Your task to perform on an android device: Open Google Maps Image 0: 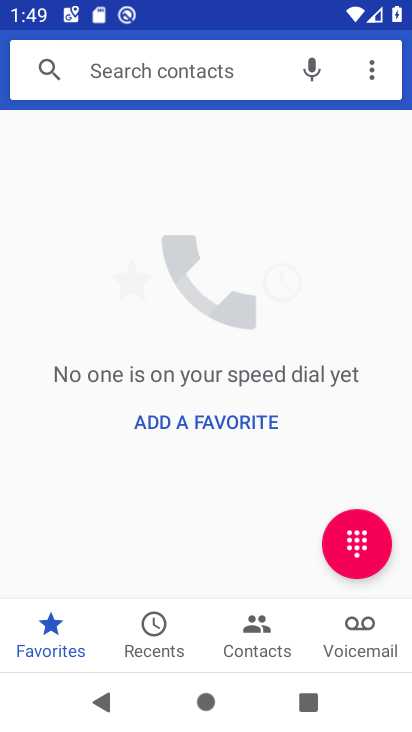
Step 0: drag from (239, 556) to (246, 348)
Your task to perform on an android device: Open Google Maps Image 1: 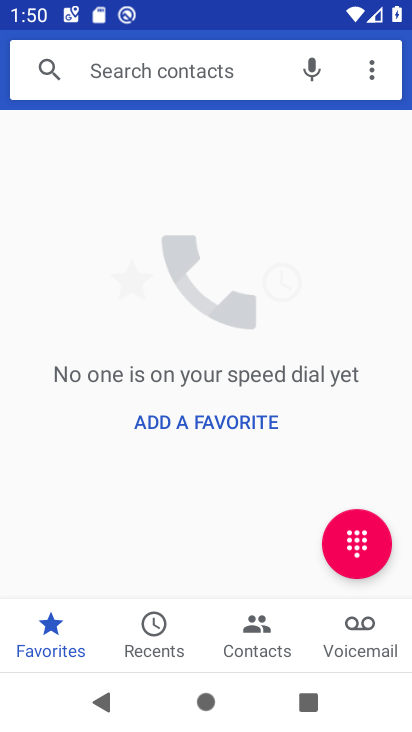
Step 1: drag from (209, 575) to (303, 251)
Your task to perform on an android device: Open Google Maps Image 2: 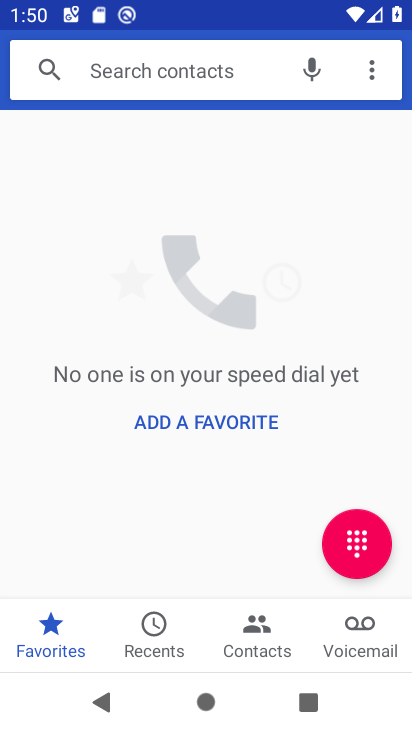
Step 2: press home button
Your task to perform on an android device: Open Google Maps Image 3: 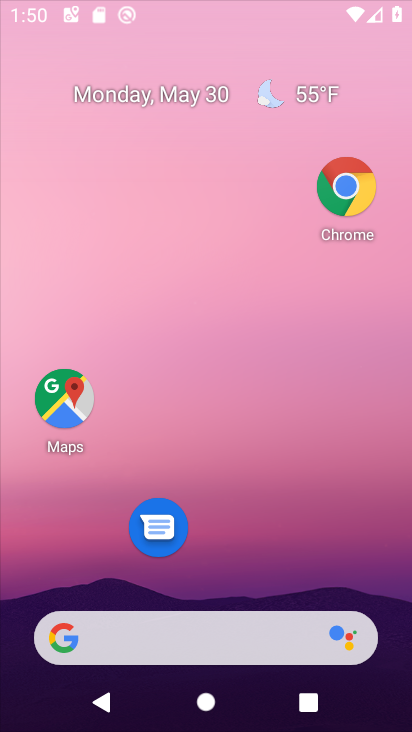
Step 3: drag from (222, 498) to (248, 152)
Your task to perform on an android device: Open Google Maps Image 4: 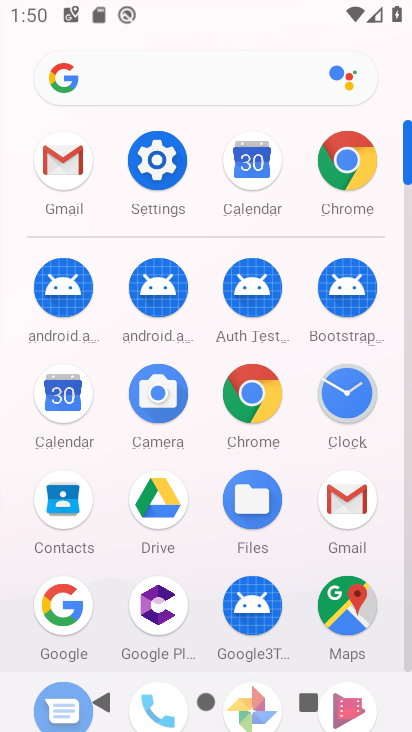
Step 4: click (352, 611)
Your task to perform on an android device: Open Google Maps Image 5: 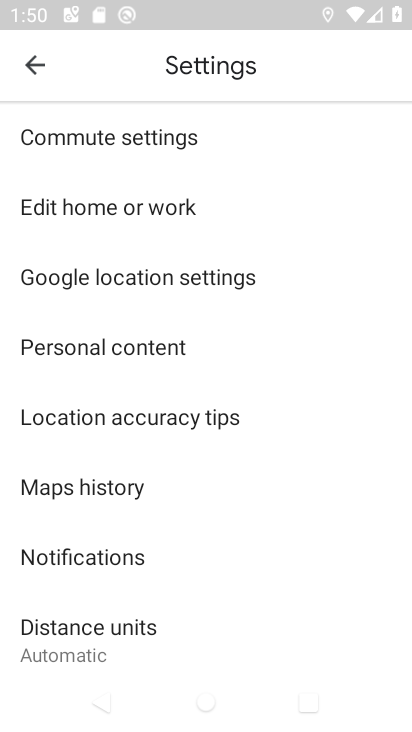
Step 5: drag from (184, 589) to (258, 239)
Your task to perform on an android device: Open Google Maps Image 6: 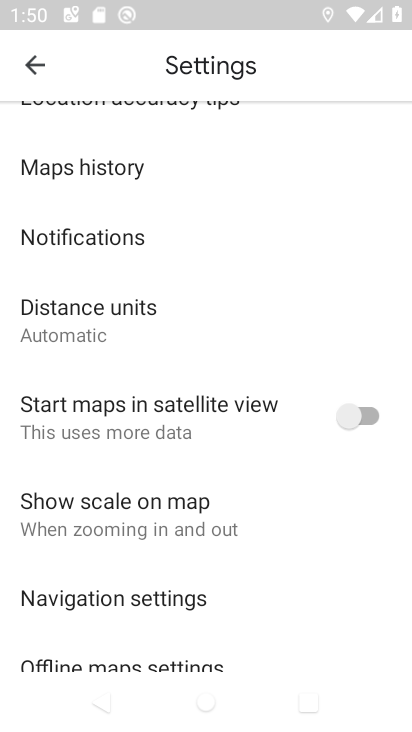
Step 6: drag from (225, 565) to (246, 264)
Your task to perform on an android device: Open Google Maps Image 7: 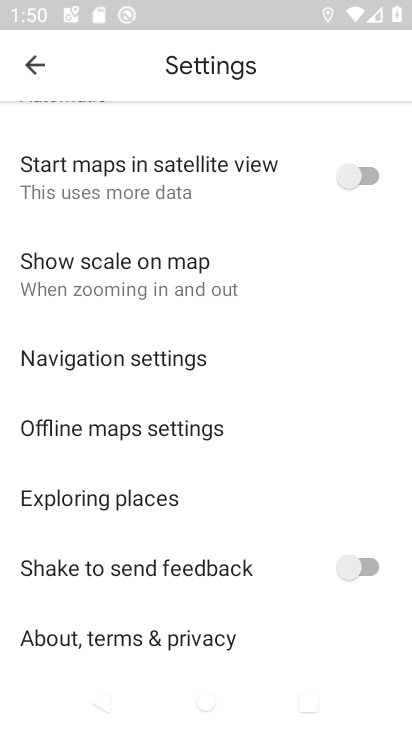
Step 7: drag from (231, 271) to (303, 711)
Your task to perform on an android device: Open Google Maps Image 8: 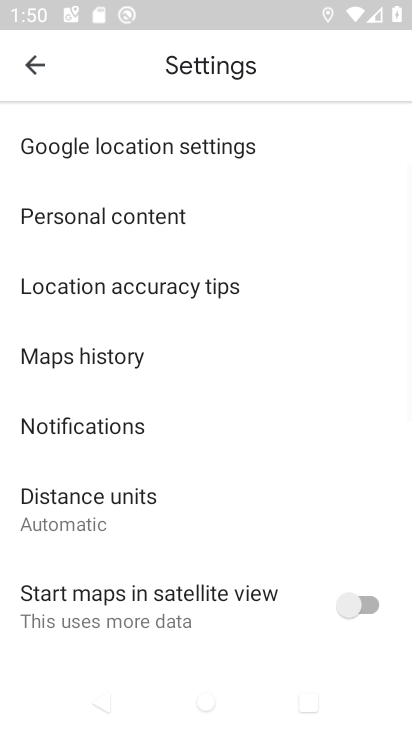
Step 8: click (33, 65)
Your task to perform on an android device: Open Google Maps Image 9: 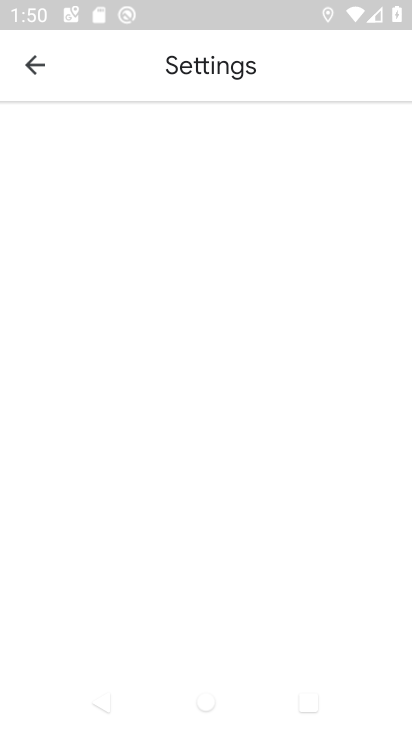
Step 9: click (28, 63)
Your task to perform on an android device: Open Google Maps Image 10: 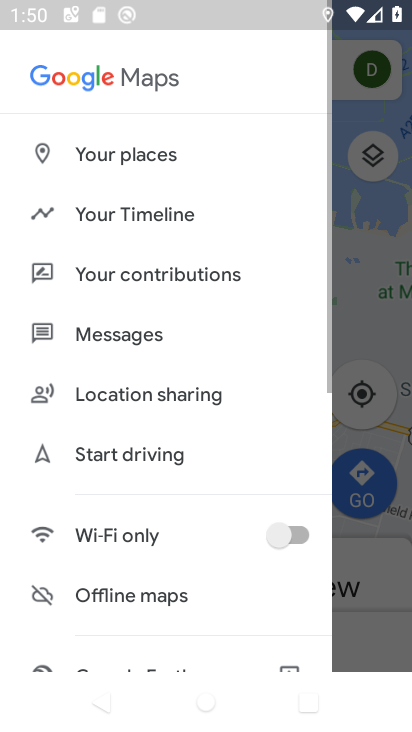
Step 10: task complete